Your task to perform on an android device: turn on wifi Image 0: 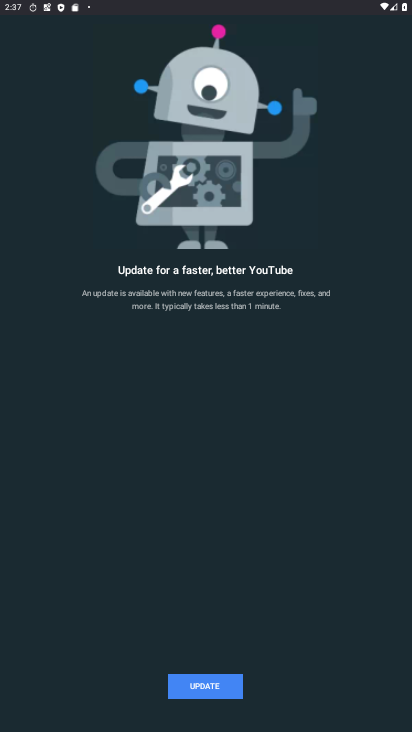
Step 0: press home button
Your task to perform on an android device: turn on wifi Image 1: 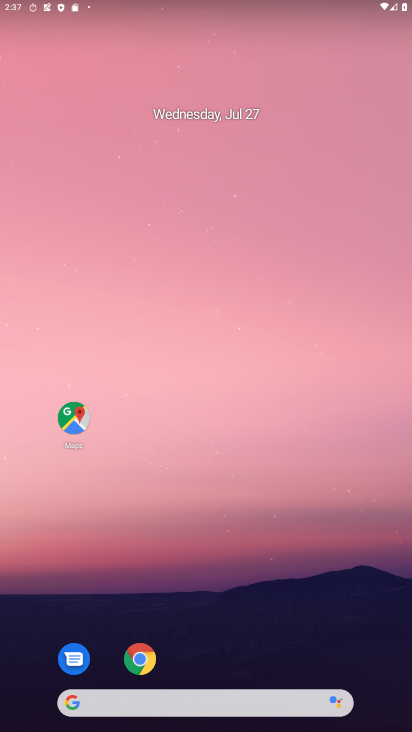
Step 1: drag from (200, 724) to (215, 143)
Your task to perform on an android device: turn on wifi Image 2: 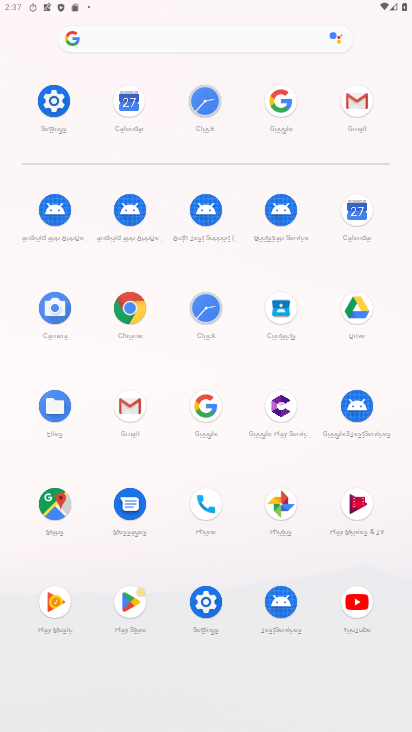
Step 2: click (46, 100)
Your task to perform on an android device: turn on wifi Image 3: 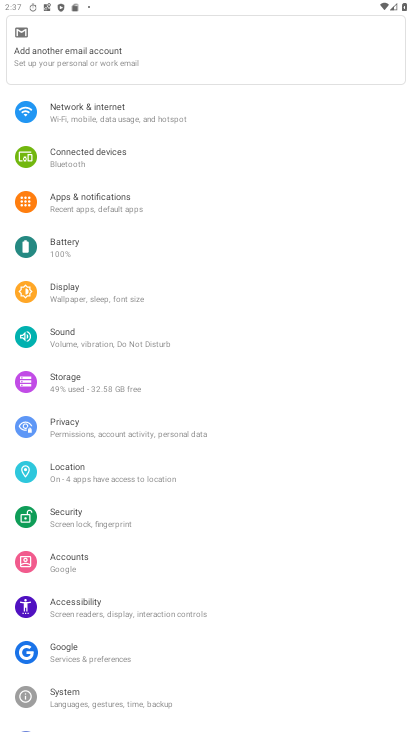
Step 3: click (104, 111)
Your task to perform on an android device: turn on wifi Image 4: 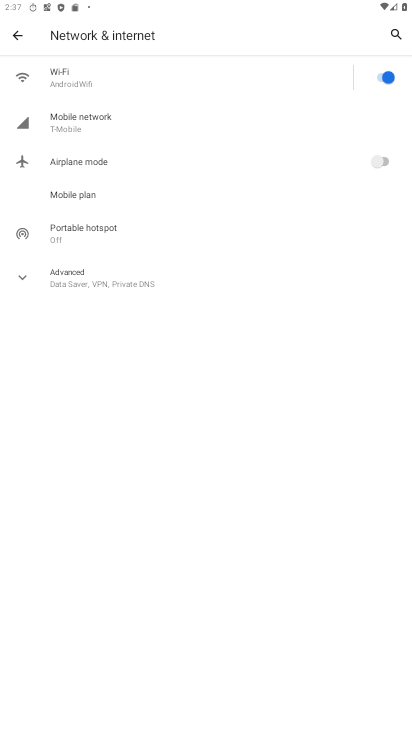
Step 4: task complete